Your task to perform on an android device: change the upload size in google photos Image 0: 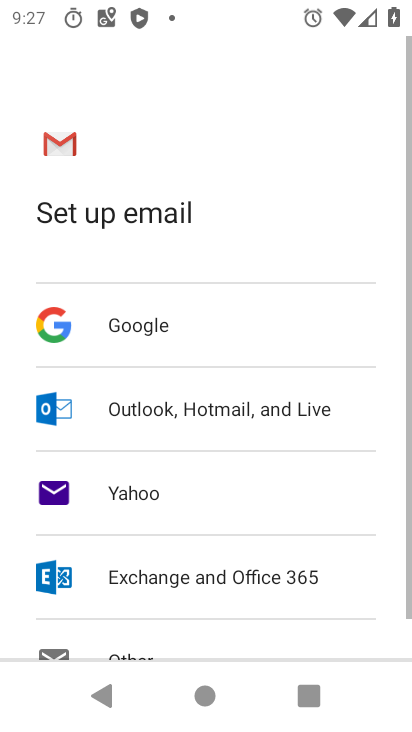
Step 0: press home button
Your task to perform on an android device: change the upload size in google photos Image 1: 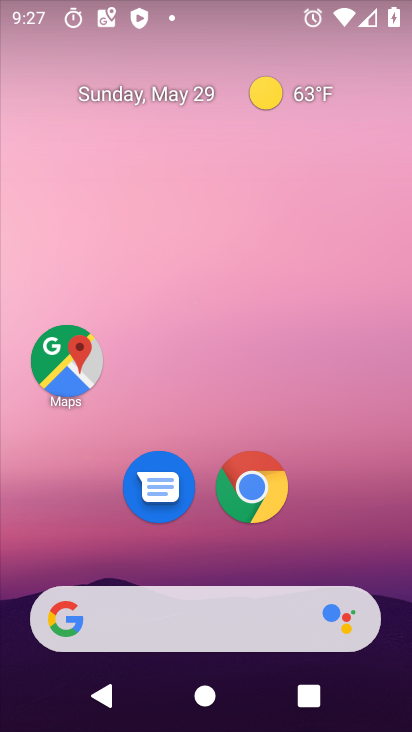
Step 1: drag from (261, 633) to (260, 11)
Your task to perform on an android device: change the upload size in google photos Image 2: 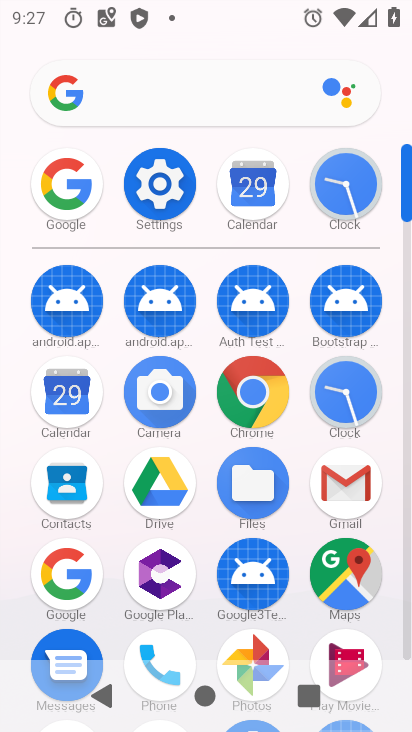
Step 2: drag from (269, 462) to (279, 191)
Your task to perform on an android device: change the upload size in google photos Image 3: 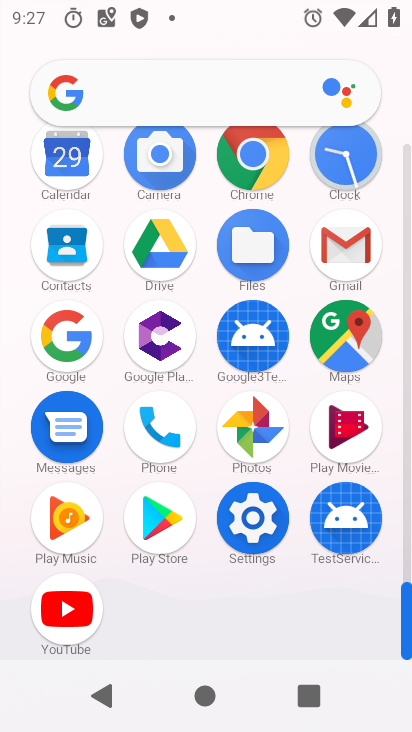
Step 3: click (262, 461)
Your task to perform on an android device: change the upload size in google photos Image 4: 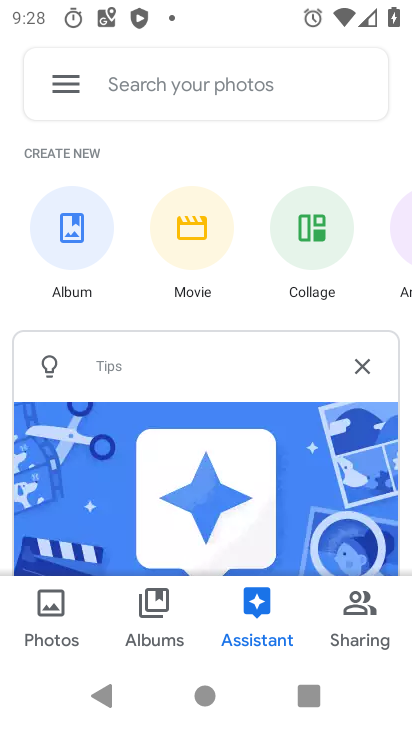
Step 4: click (58, 84)
Your task to perform on an android device: change the upload size in google photos Image 5: 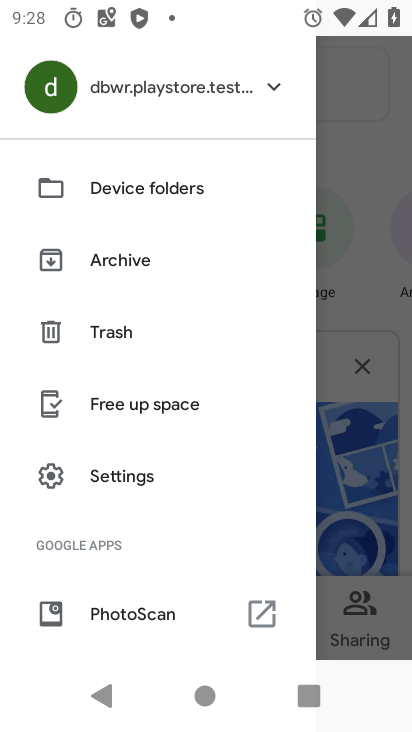
Step 5: click (156, 476)
Your task to perform on an android device: change the upload size in google photos Image 6: 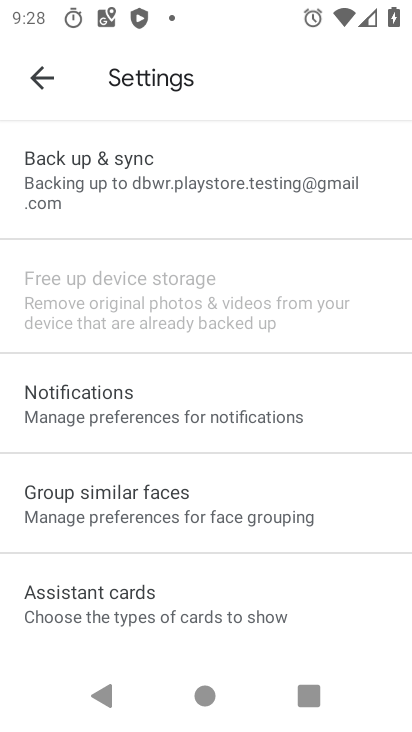
Step 6: click (208, 200)
Your task to perform on an android device: change the upload size in google photos Image 7: 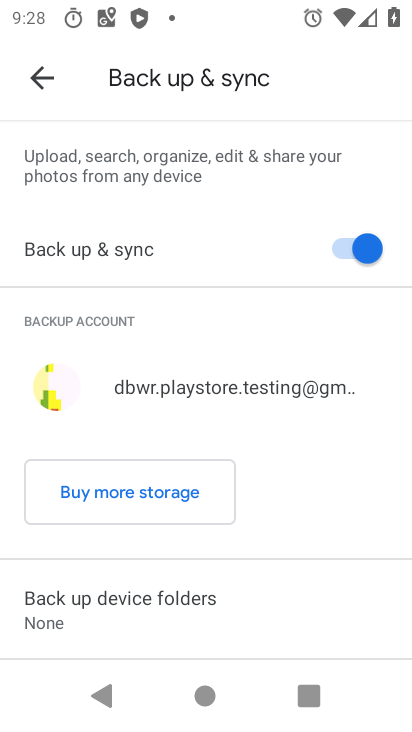
Step 7: drag from (231, 590) to (158, 209)
Your task to perform on an android device: change the upload size in google photos Image 8: 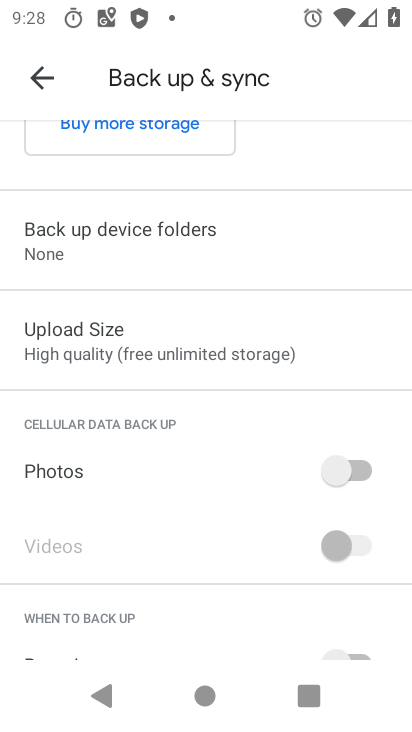
Step 8: click (229, 367)
Your task to perform on an android device: change the upload size in google photos Image 9: 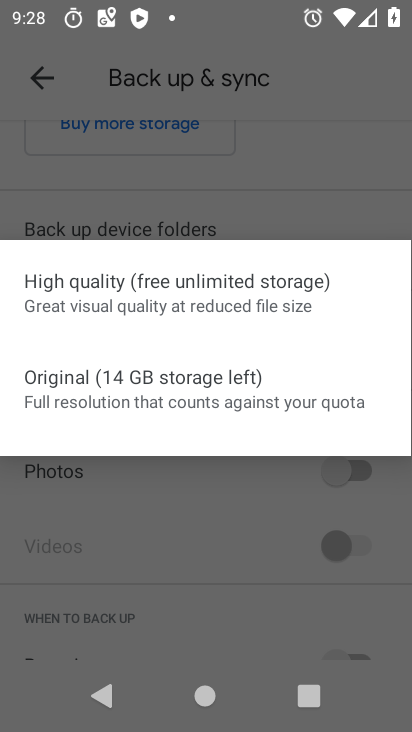
Step 9: click (207, 203)
Your task to perform on an android device: change the upload size in google photos Image 10: 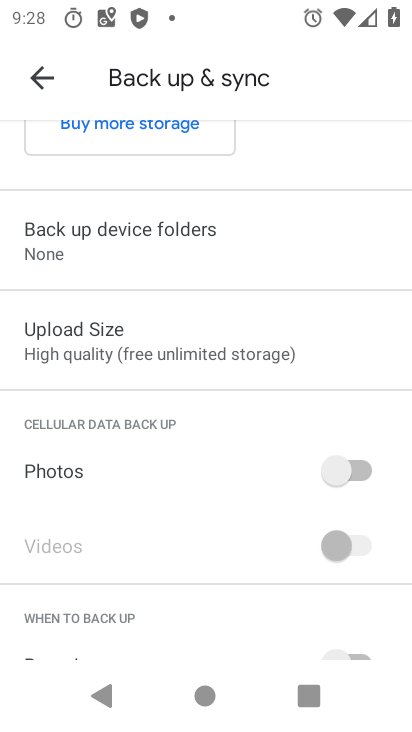
Step 10: click (218, 316)
Your task to perform on an android device: change the upload size in google photos Image 11: 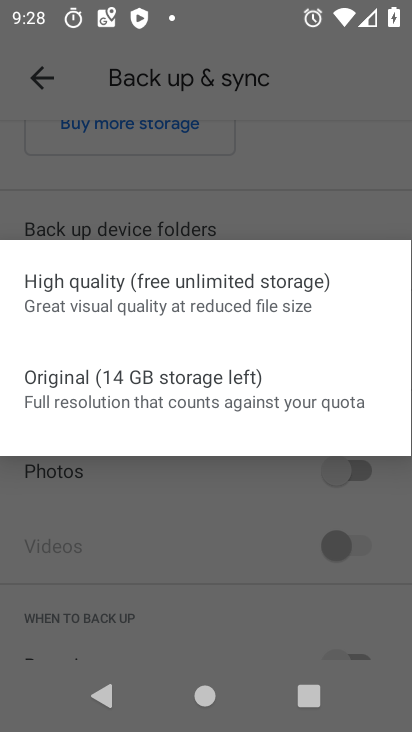
Step 11: click (245, 403)
Your task to perform on an android device: change the upload size in google photos Image 12: 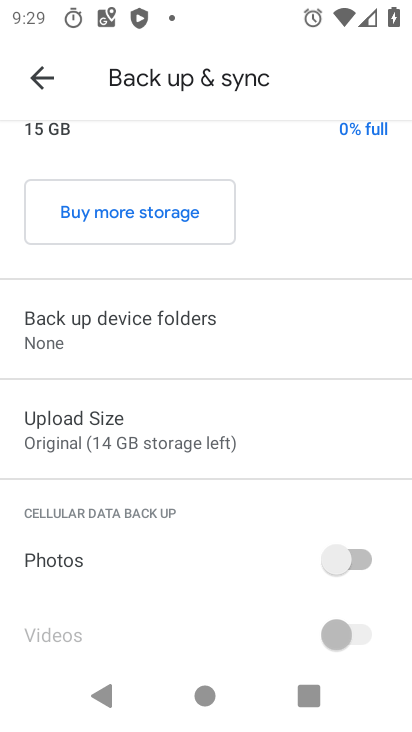
Step 12: task complete